Your task to perform on an android device: Open Reddit.com Image 0: 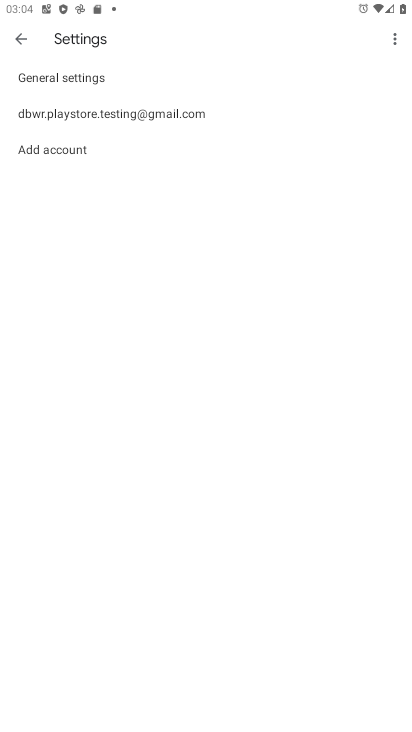
Step 0: press home button
Your task to perform on an android device: Open Reddit.com Image 1: 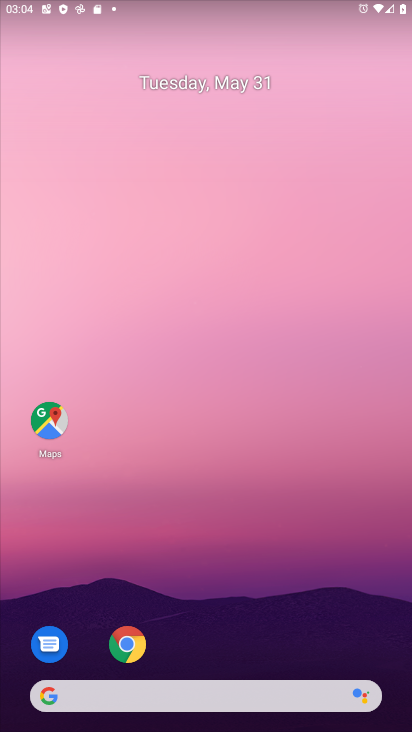
Step 1: click (132, 650)
Your task to perform on an android device: Open Reddit.com Image 2: 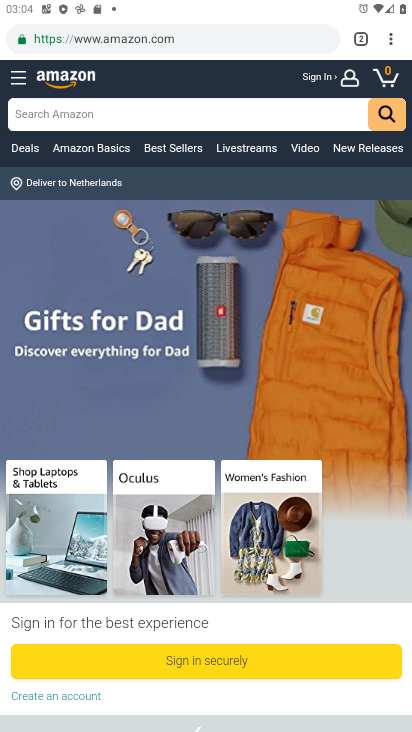
Step 2: click (195, 38)
Your task to perform on an android device: Open Reddit.com Image 3: 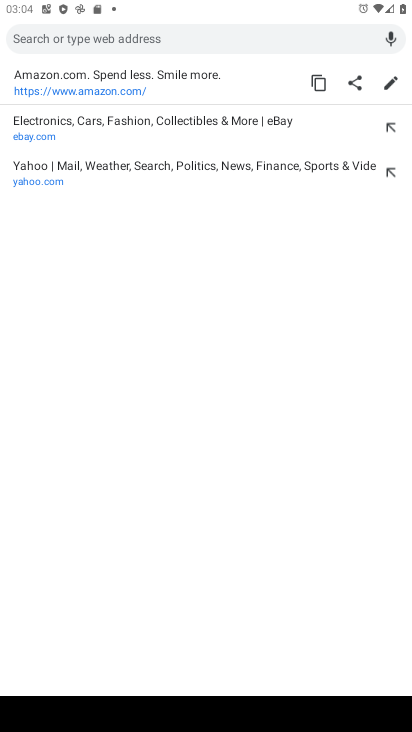
Step 3: type "reddit.com"
Your task to perform on an android device: Open Reddit.com Image 4: 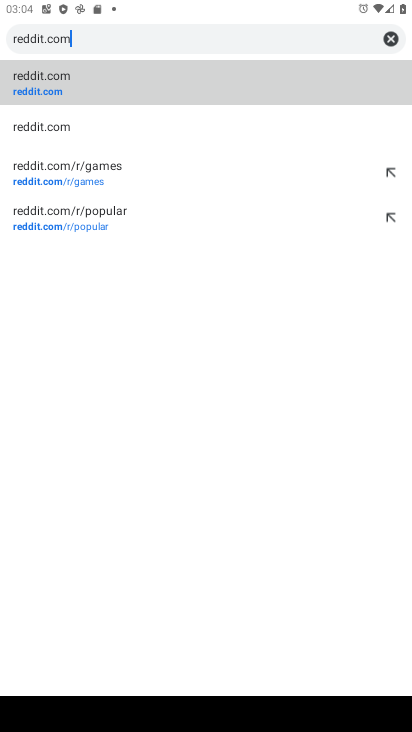
Step 4: click (31, 90)
Your task to perform on an android device: Open Reddit.com Image 5: 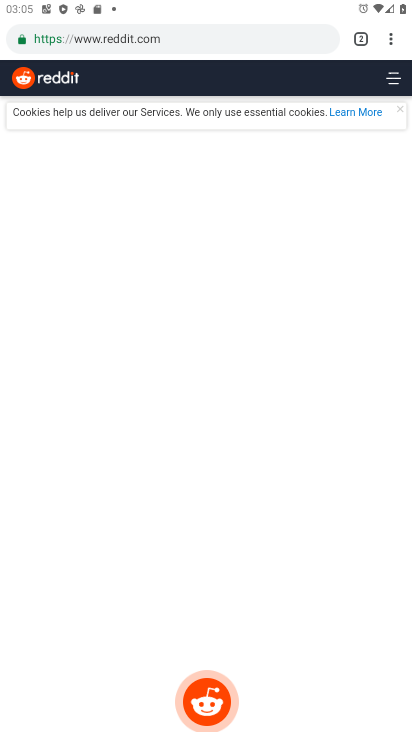
Step 5: task complete